Your task to perform on an android device: Add razer blackwidow to the cart on walmart Image 0: 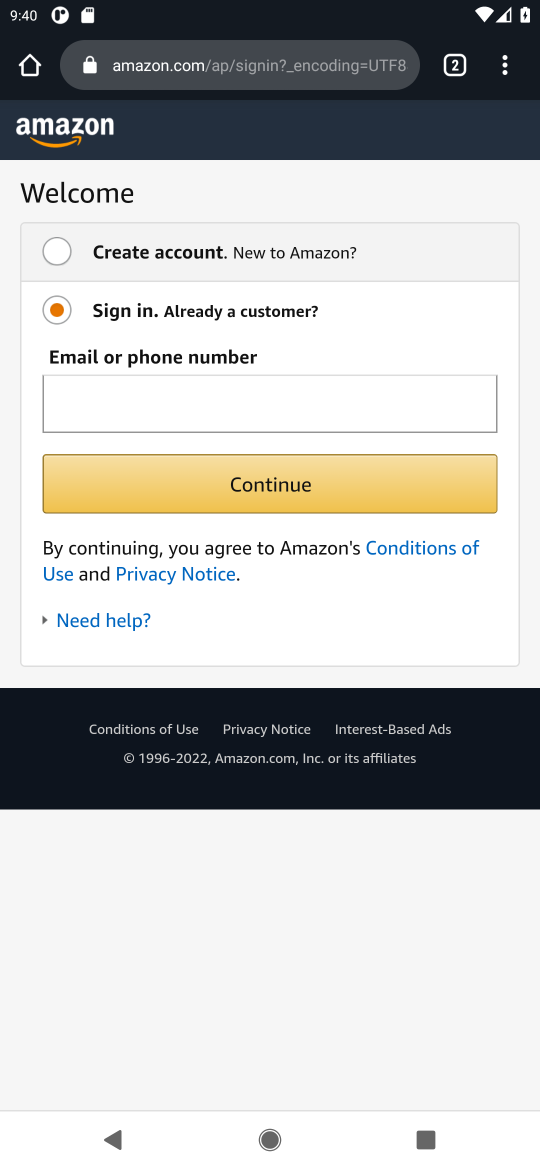
Step 0: click (219, 70)
Your task to perform on an android device: Add razer blackwidow to the cart on walmart Image 1: 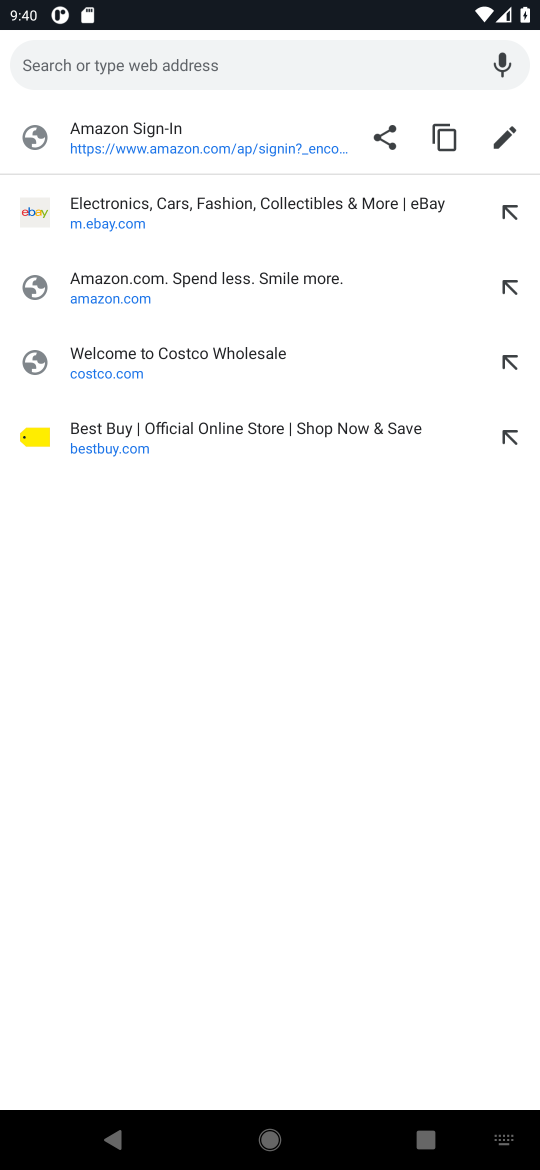
Step 1: type "walmart.com"
Your task to perform on an android device: Add razer blackwidow to the cart on walmart Image 2: 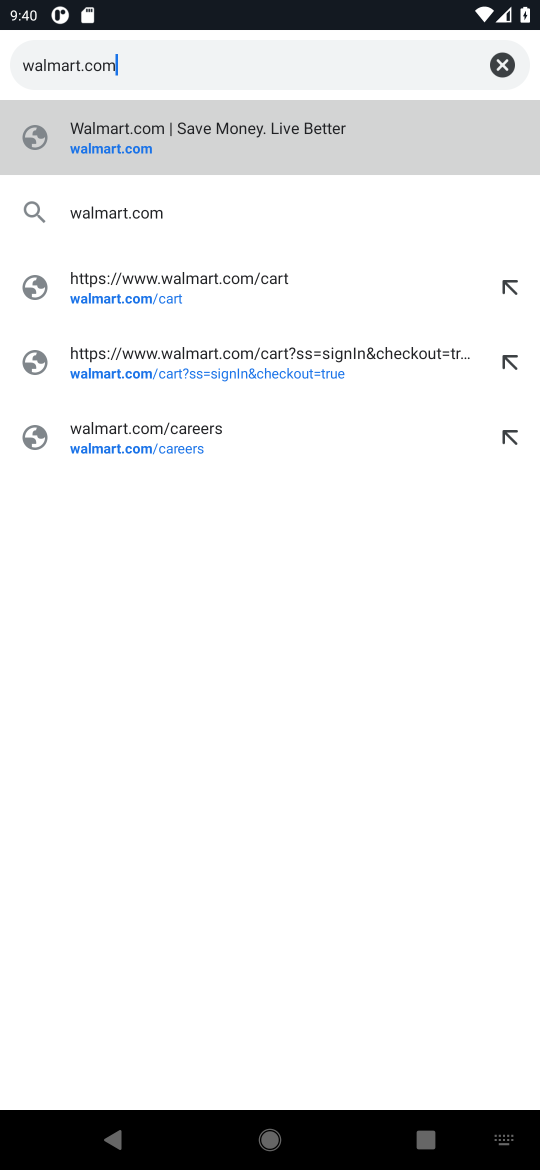
Step 2: click (112, 147)
Your task to perform on an android device: Add razer blackwidow to the cart on walmart Image 3: 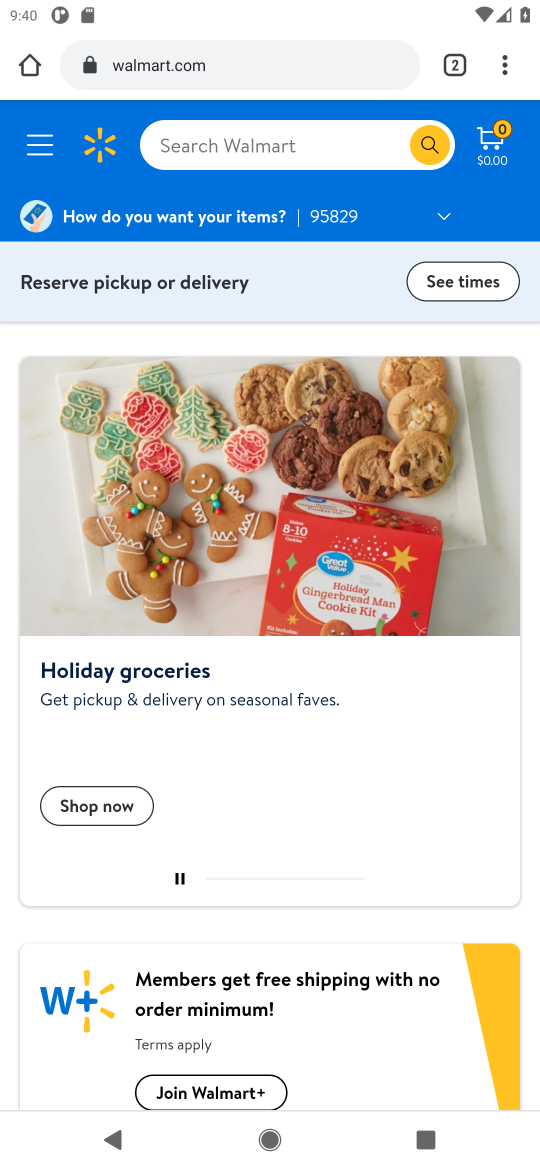
Step 3: click (204, 153)
Your task to perform on an android device: Add razer blackwidow to the cart on walmart Image 4: 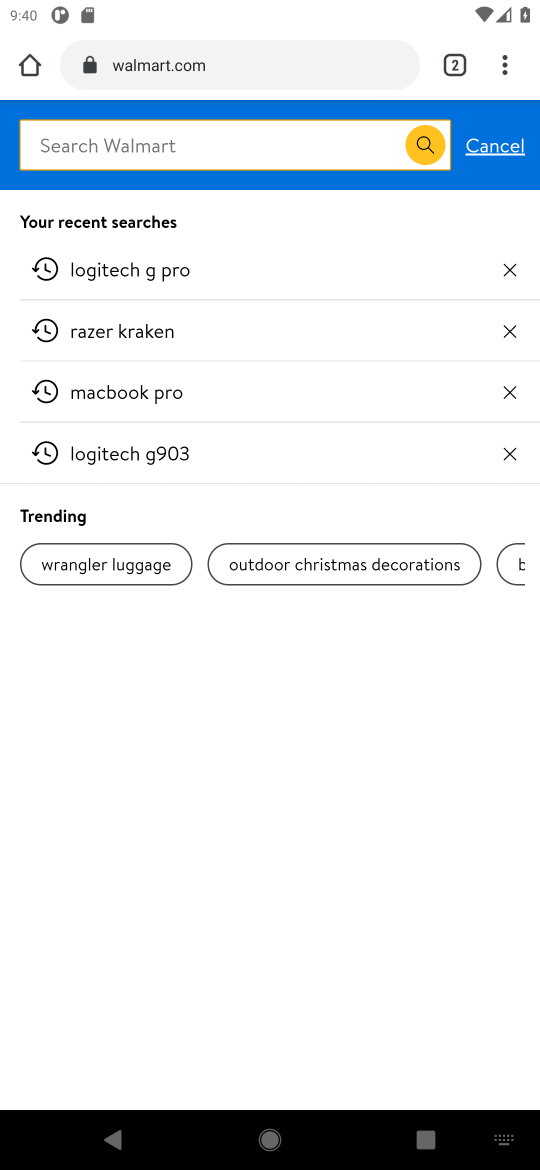
Step 4: type "razer blackwidow"
Your task to perform on an android device: Add razer blackwidow to the cart on walmart Image 5: 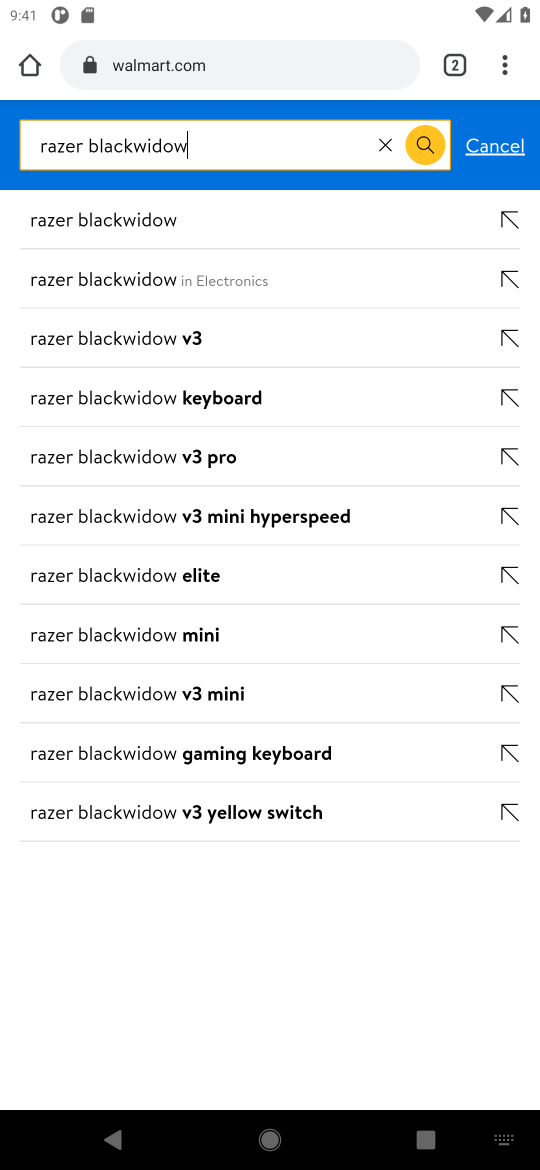
Step 5: click (73, 225)
Your task to perform on an android device: Add razer blackwidow to the cart on walmart Image 6: 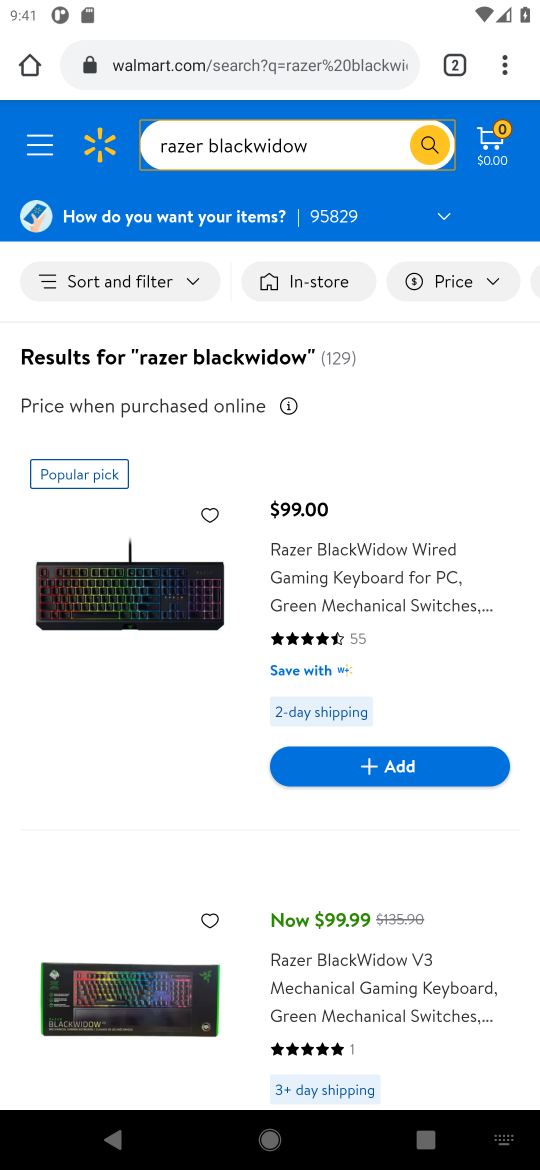
Step 6: click (385, 768)
Your task to perform on an android device: Add razer blackwidow to the cart on walmart Image 7: 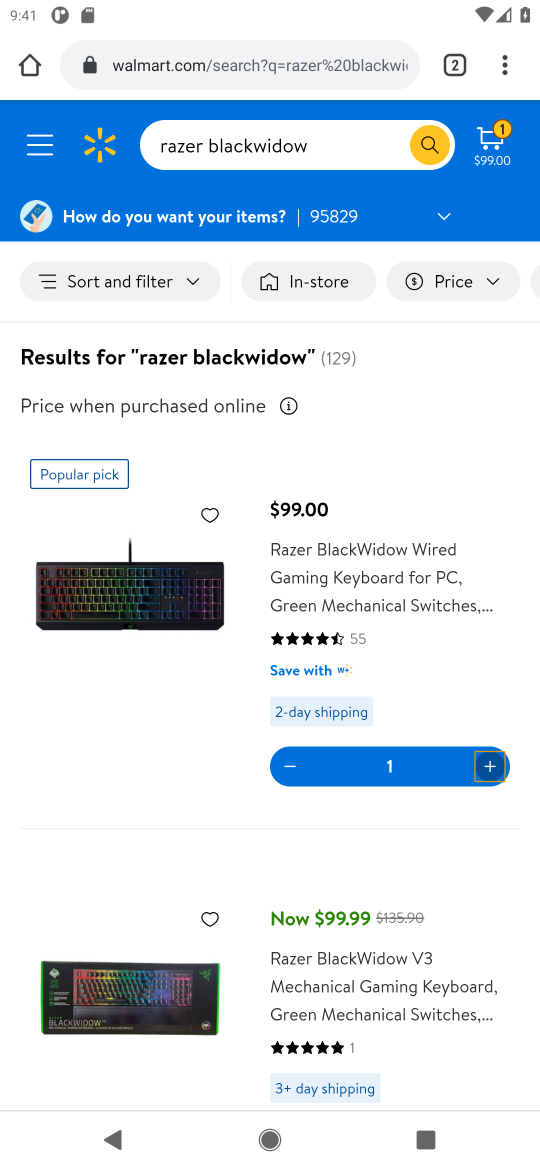
Step 7: task complete